Your task to perform on an android device: Show me popular games on the Play Store Image 0: 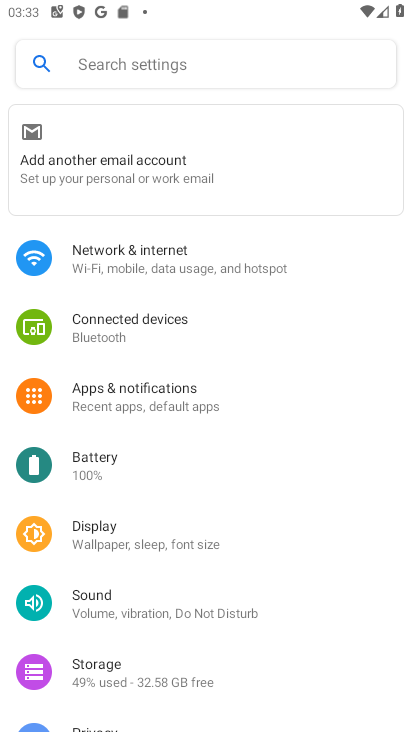
Step 0: press home button
Your task to perform on an android device: Show me popular games on the Play Store Image 1: 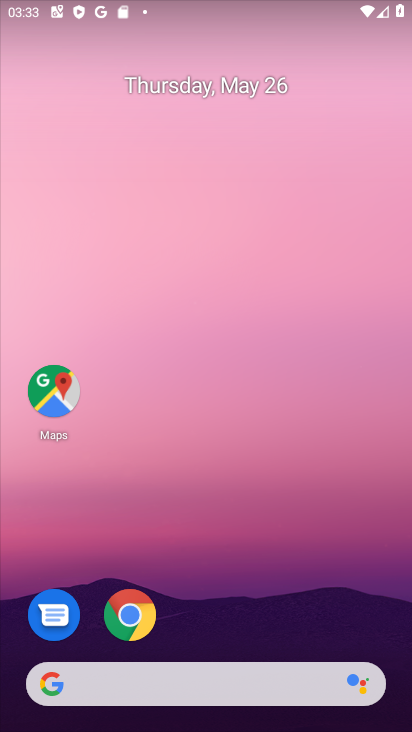
Step 1: drag from (215, 617) to (218, 159)
Your task to perform on an android device: Show me popular games on the Play Store Image 2: 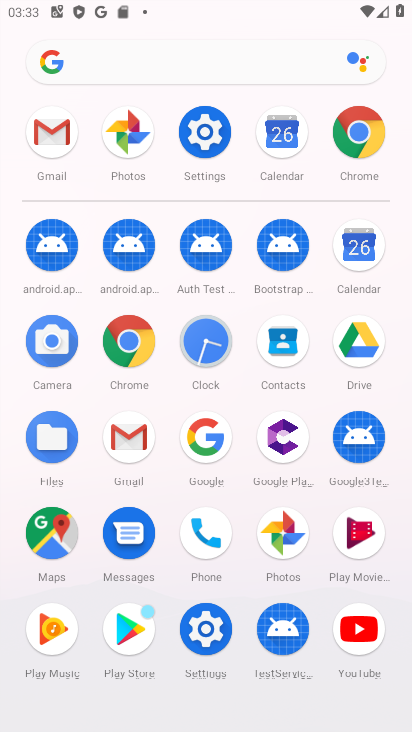
Step 2: click (141, 631)
Your task to perform on an android device: Show me popular games on the Play Store Image 3: 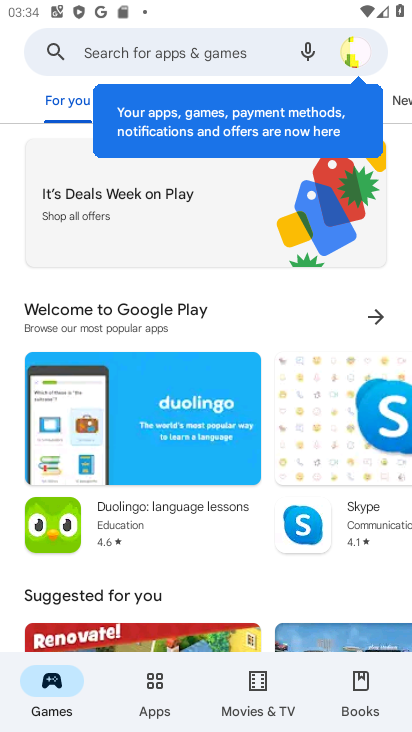
Step 3: task complete